Your task to perform on an android device: toggle wifi Image 0: 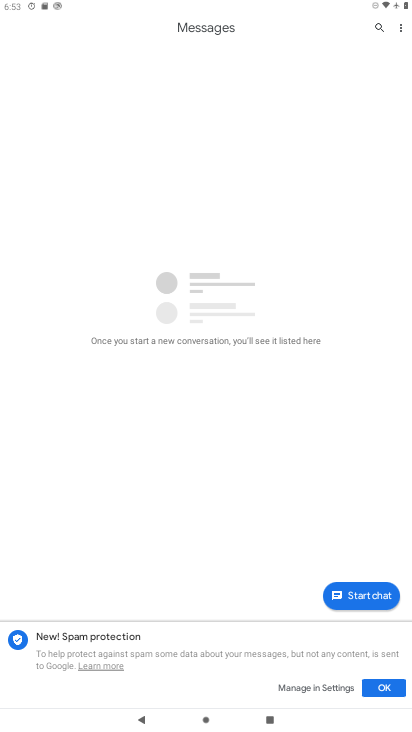
Step 0: press home button
Your task to perform on an android device: toggle wifi Image 1: 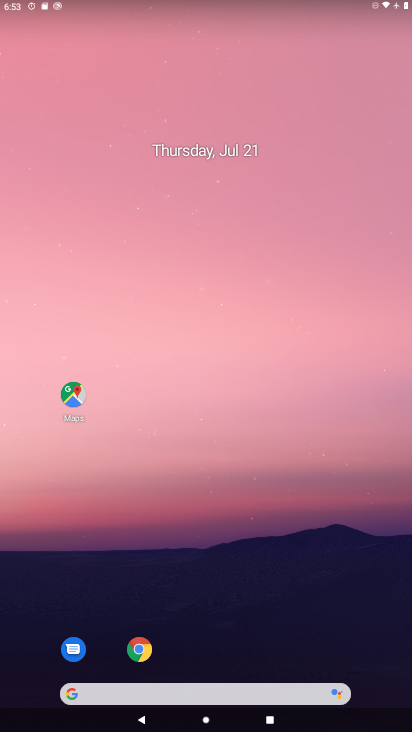
Step 1: drag from (180, 4) to (200, 511)
Your task to perform on an android device: toggle wifi Image 2: 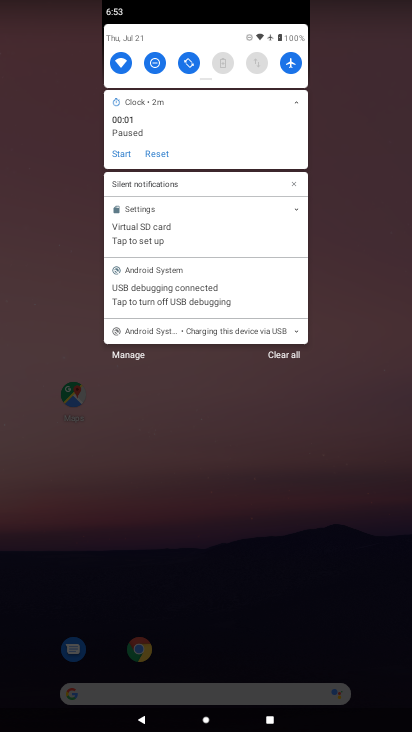
Step 2: click (119, 59)
Your task to perform on an android device: toggle wifi Image 3: 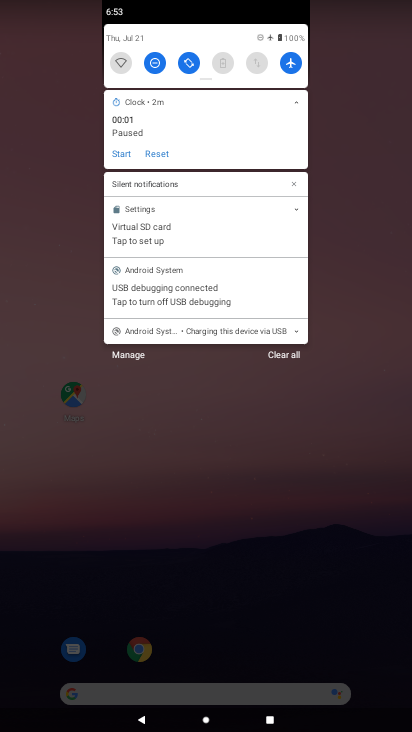
Step 3: task complete